Your task to perform on an android device: allow notifications from all sites in the chrome app Image 0: 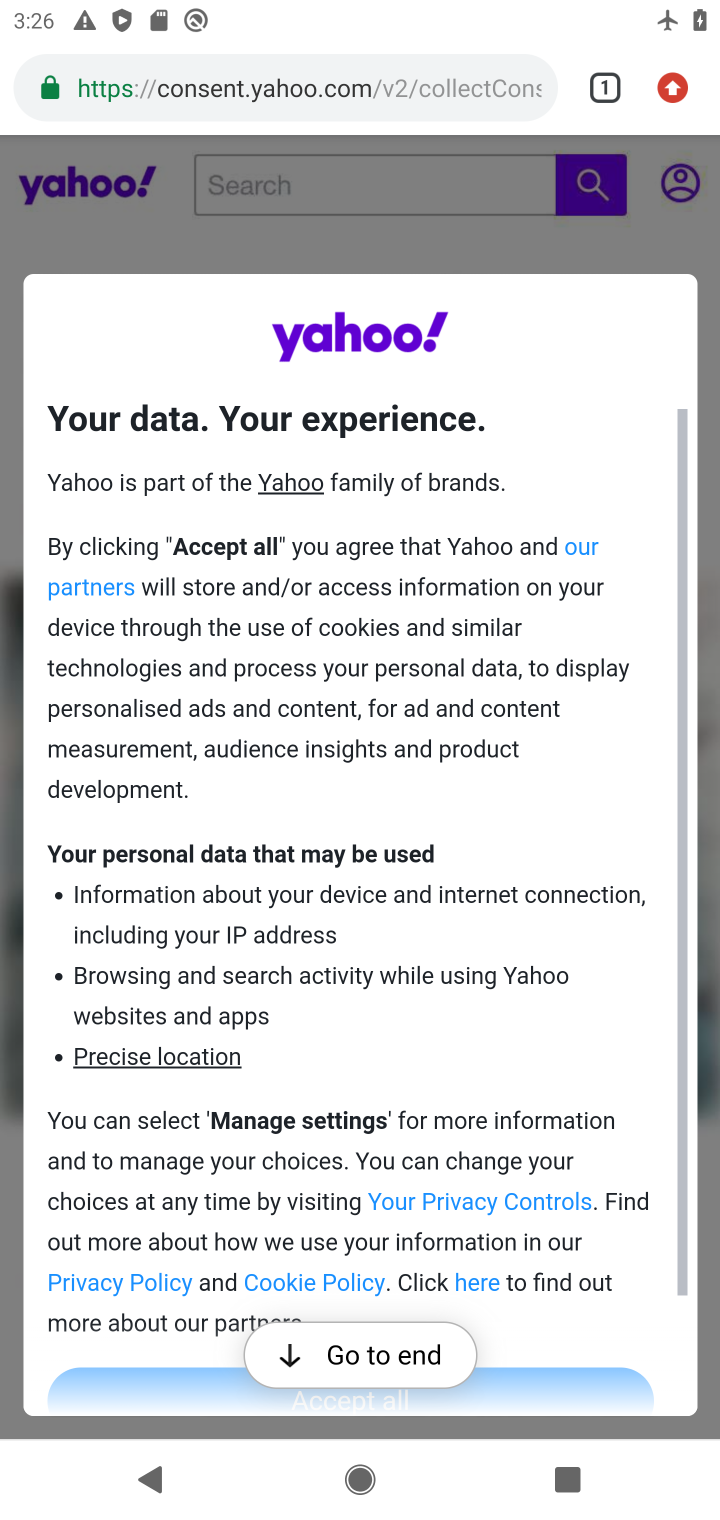
Step 0: click (665, 83)
Your task to perform on an android device: allow notifications from all sites in the chrome app Image 1: 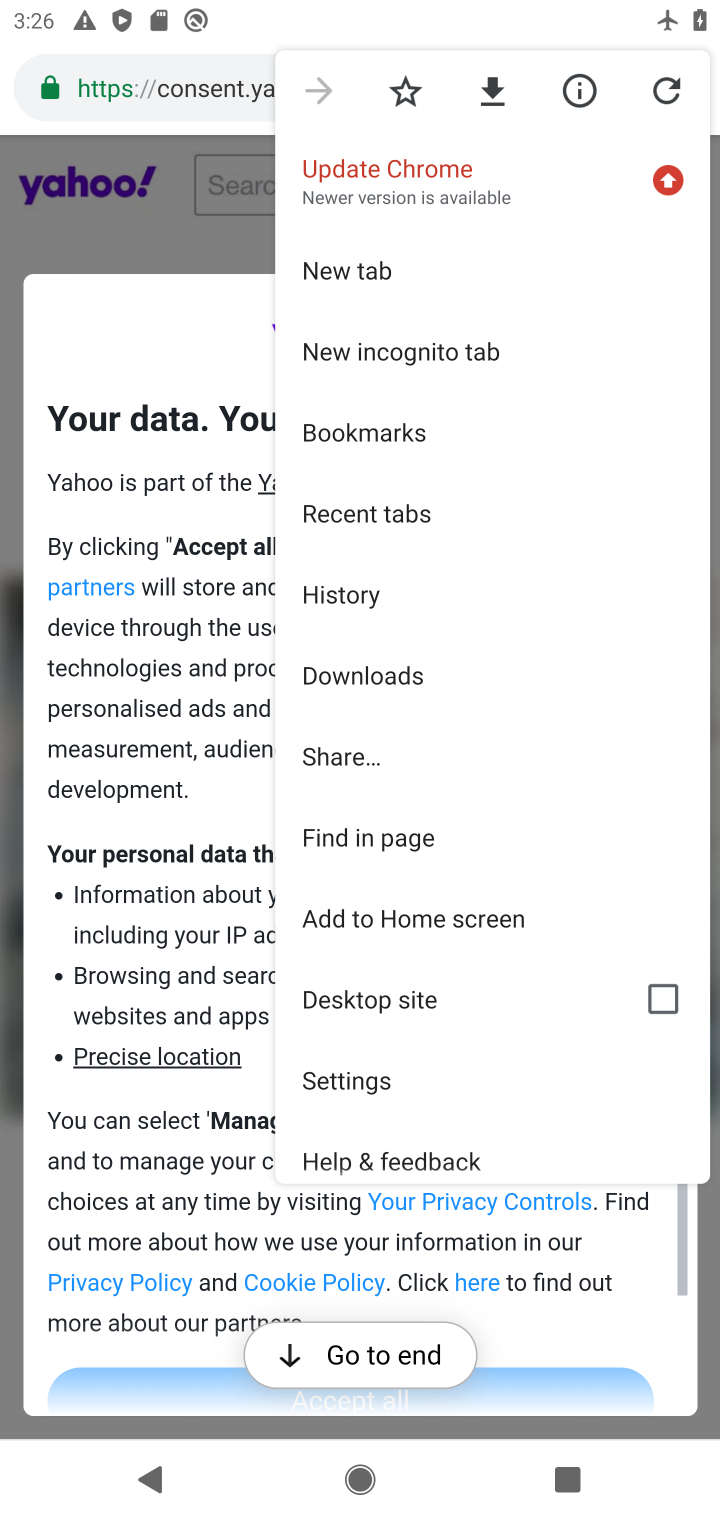
Step 1: click (368, 1087)
Your task to perform on an android device: allow notifications from all sites in the chrome app Image 2: 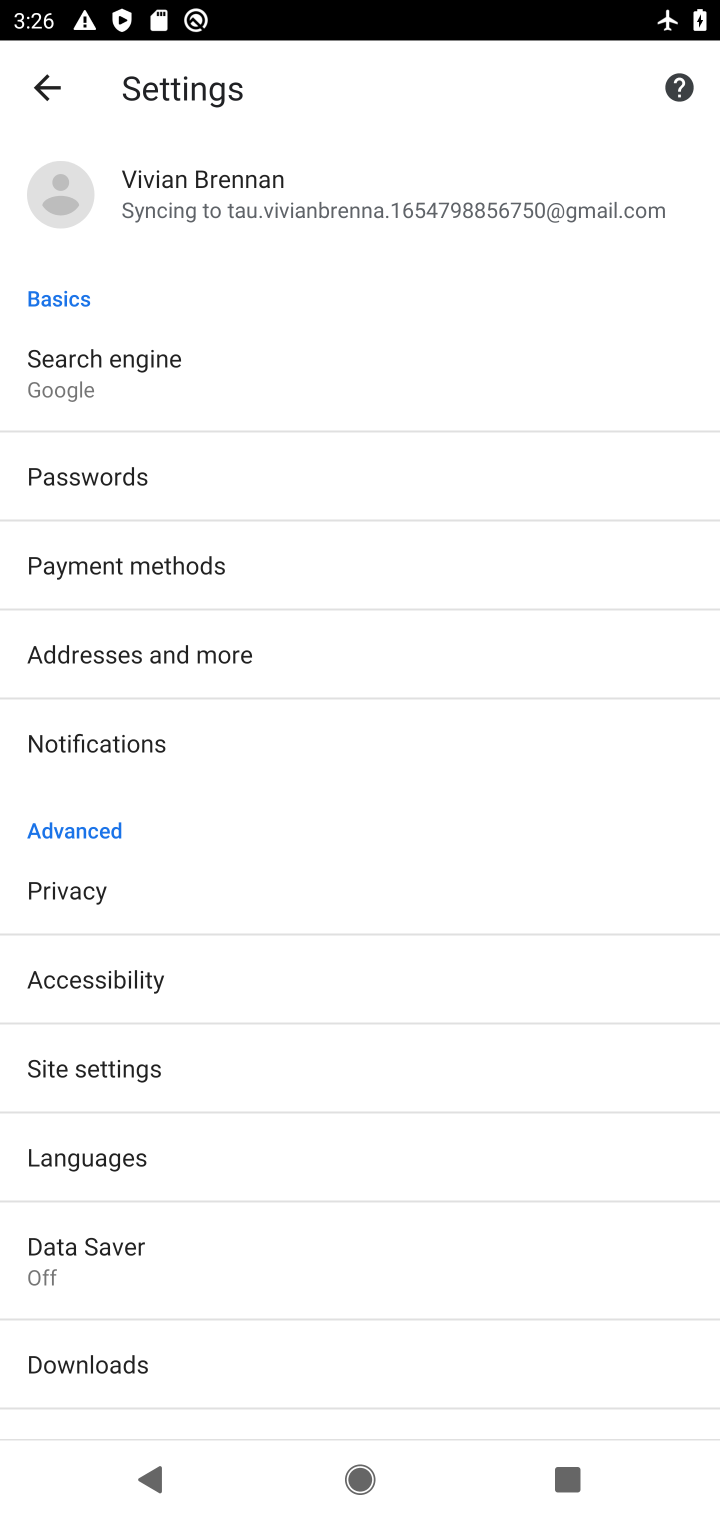
Step 2: drag from (151, 1356) to (61, 673)
Your task to perform on an android device: allow notifications from all sites in the chrome app Image 3: 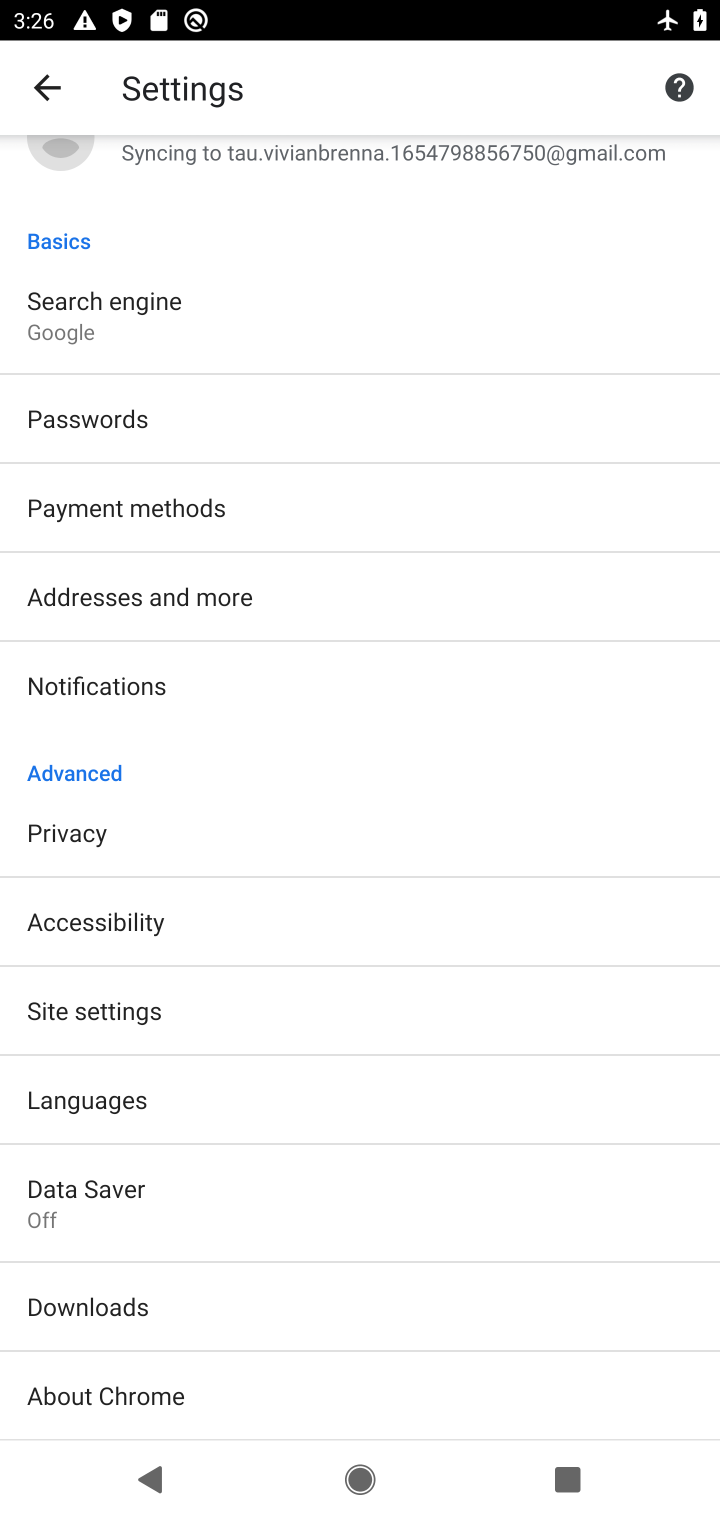
Step 3: click (130, 666)
Your task to perform on an android device: allow notifications from all sites in the chrome app Image 4: 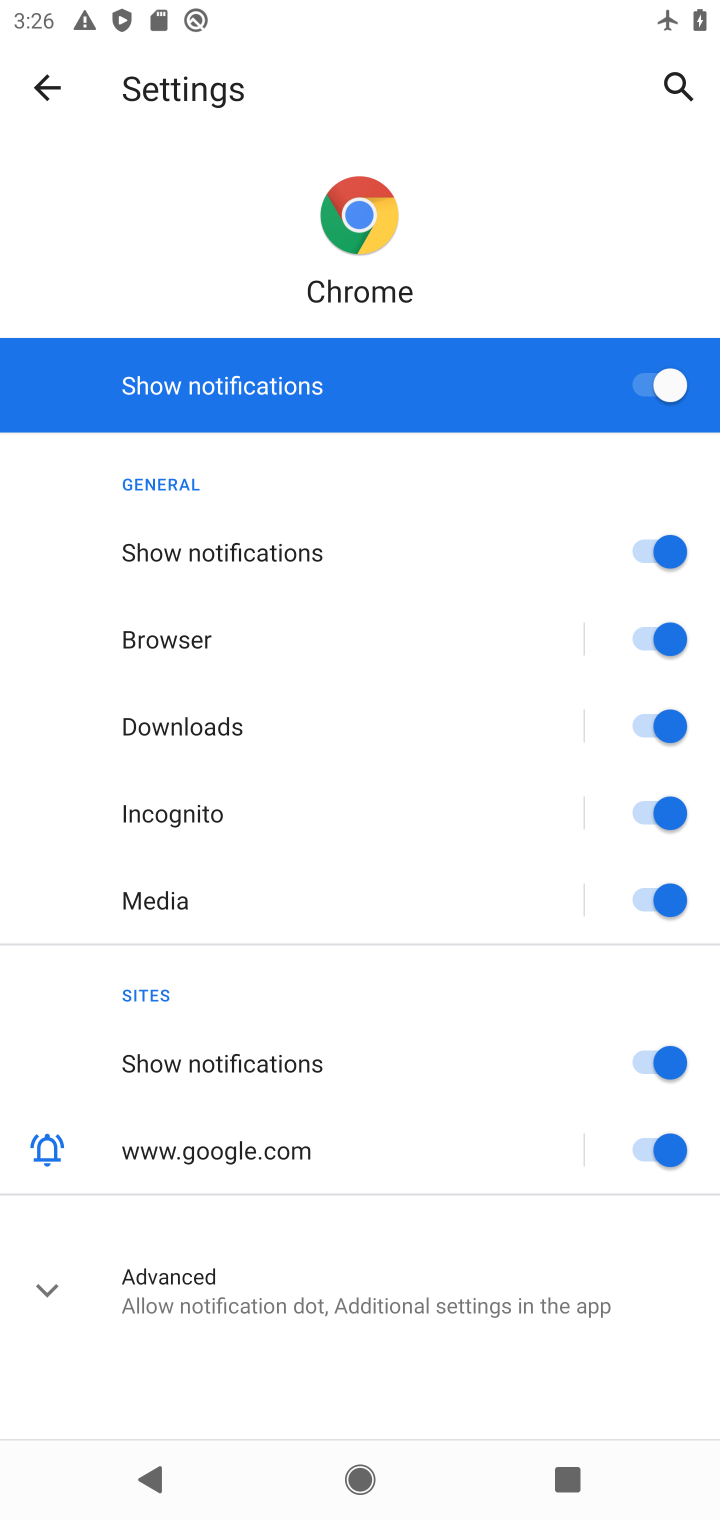
Step 4: task complete